Your task to perform on an android device: turn pop-ups off in chrome Image 0: 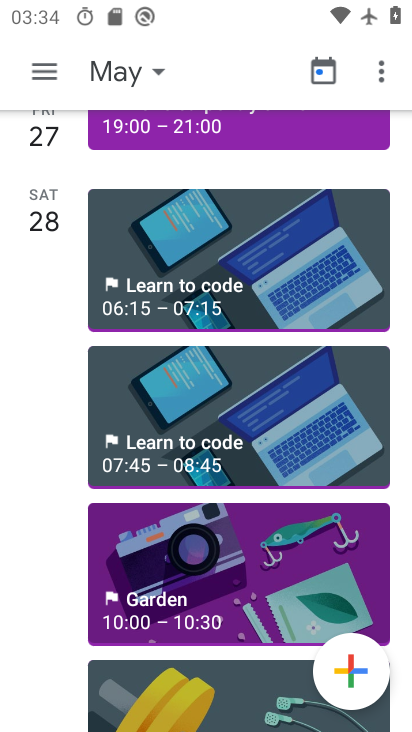
Step 0: press home button
Your task to perform on an android device: turn pop-ups off in chrome Image 1: 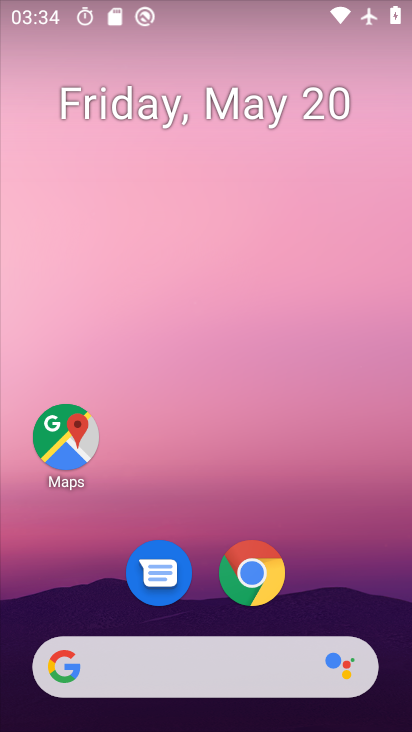
Step 1: click (257, 555)
Your task to perform on an android device: turn pop-ups off in chrome Image 2: 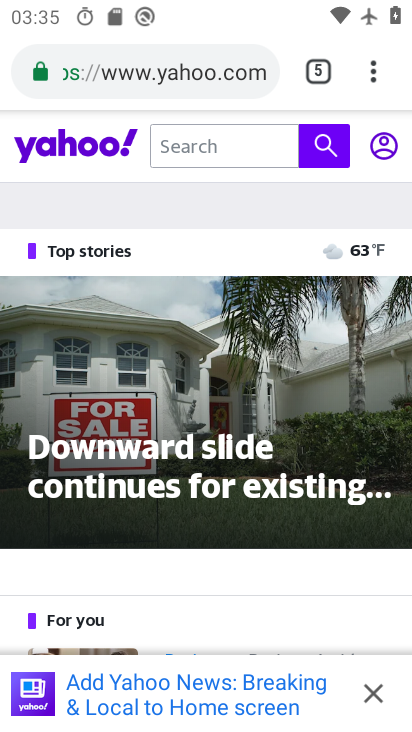
Step 2: click (375, 70)
Your task to perform on an android device: turn pop-ups off in chrome Image 3: 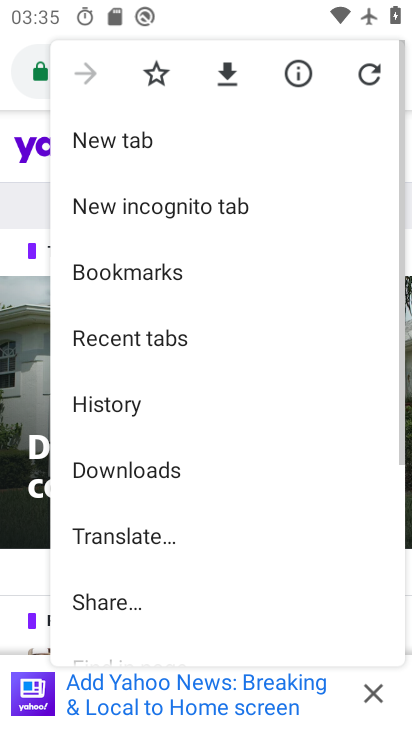
Step 3: drag from (210, 550) to (203, 303)
Your task to perform on an android device: turn pop-ups off in chrome Image 4: 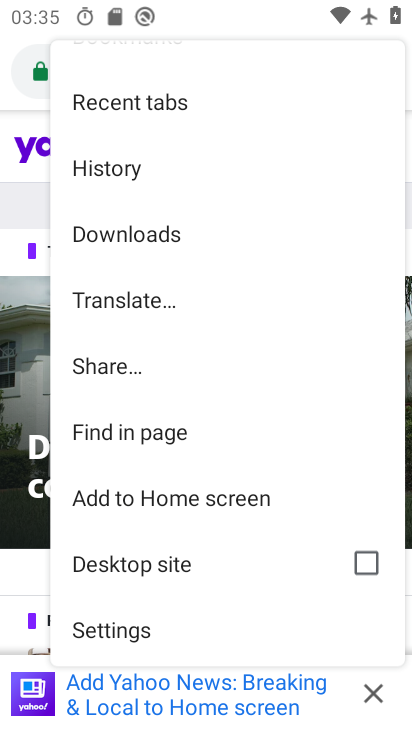
Step 4: click (166, 626)
Your task to perform on an android device: turn pop-ups off in chrome Image 5: 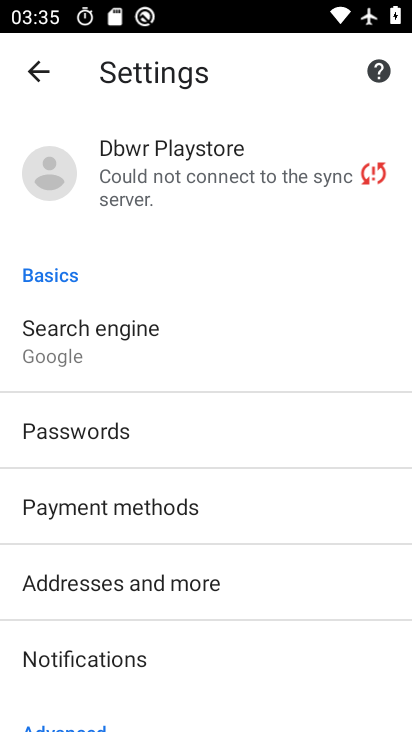
Step 5: drag from (163, 610) to (200, 377)
Your task to perform on an android device: turn pop-ups off in chrome Image 6: 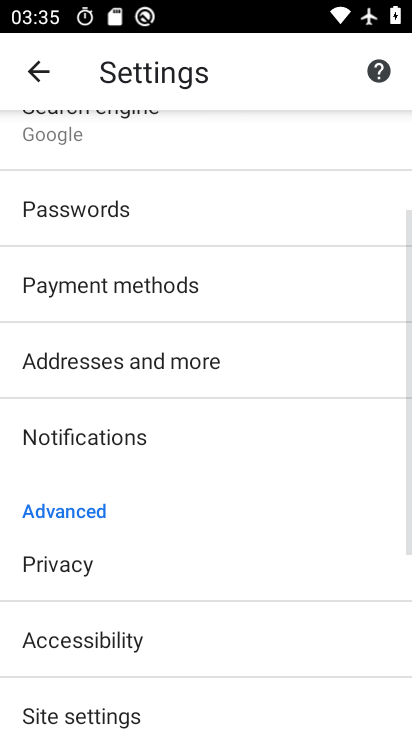
Step 6: drag from (185, 627) to (224, 439)
Your task to perform on an android device: turn pop-ups off in chrome Image 7: 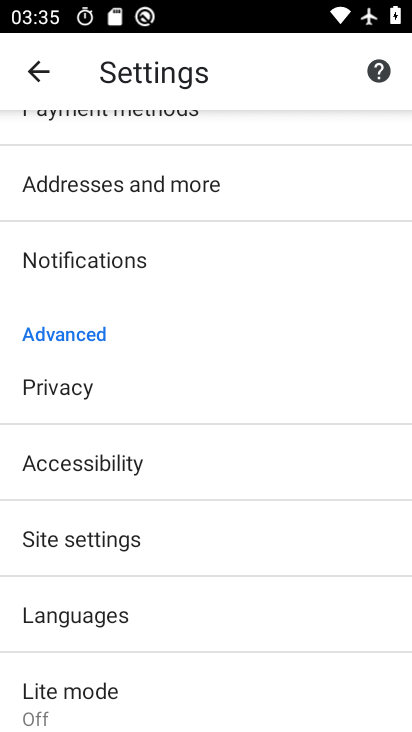
Step 7: click (170, 541)
Your task to perform on an android device: turn pop-ups off in chrome Image 8: 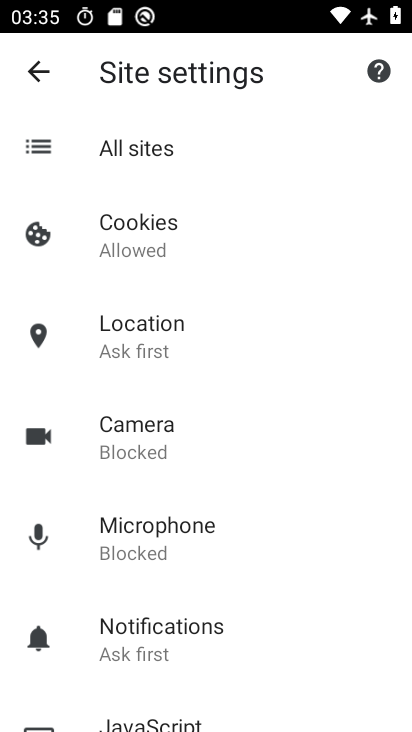
Step 8: drag from (175, 572) to (179, 318)
Your task to perform on an android device: turn pop-ups off in chrome Image 9: 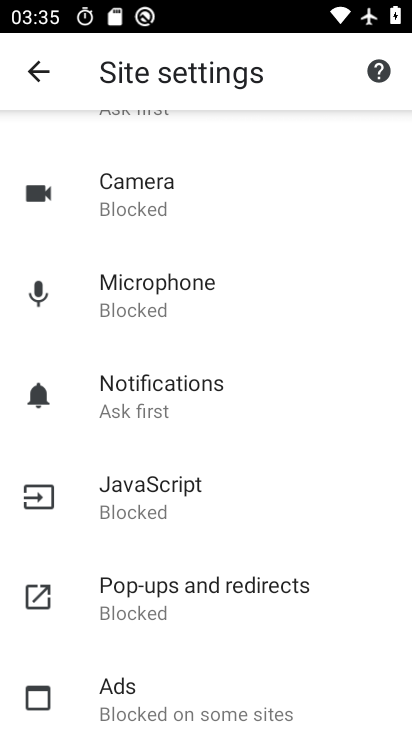
Step 9: click (146, 571)
Your task to perform on an android device: turn pop-ups off in chrome Image 10: 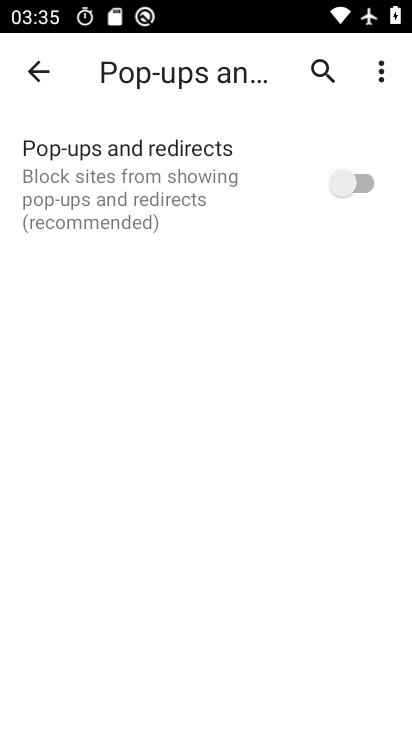
Step 10: task complete